Your task to perform on an android device: change text size in settings app Image 0: 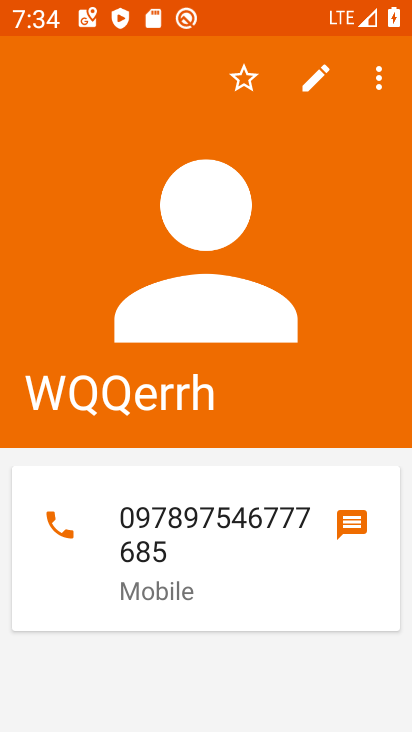
Step 0: press home button
Your task to perform on an android device: change text size in settings app Image 1: 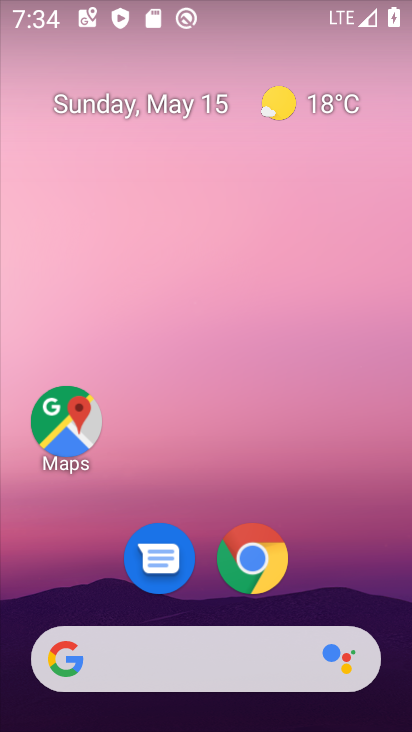
Step 1: drag from (316, 542) to (183, 73)
Your task to perform on an android device: change text size in settings app Image 2: 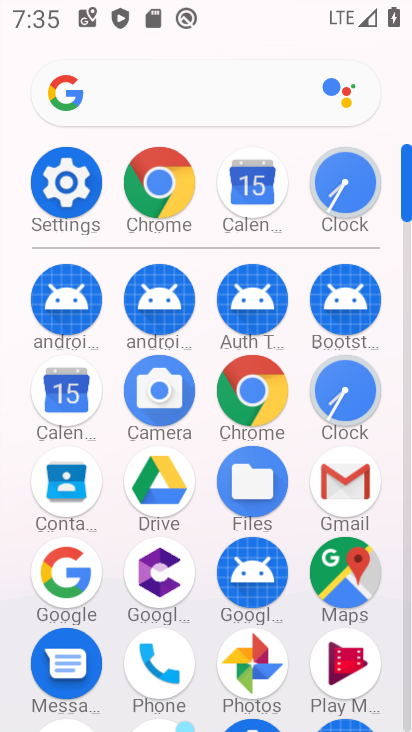
Step 2: click (63, 185)
Your task to perform on an android device: change text size in settings app Image 3: 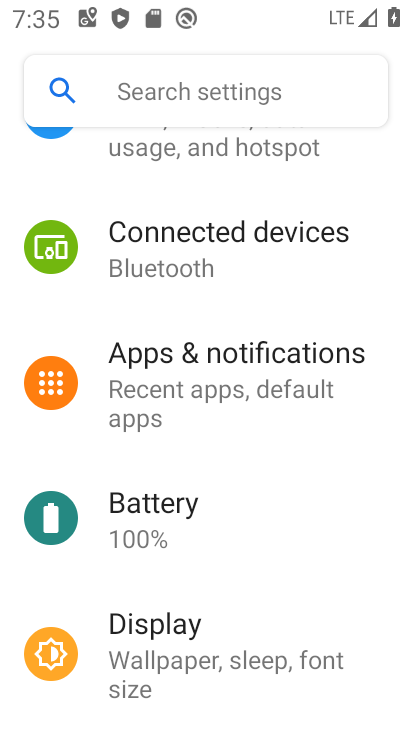
Step 3: click (145, 625)
Your task to perform on an android device: change text size in settings app Image 4: 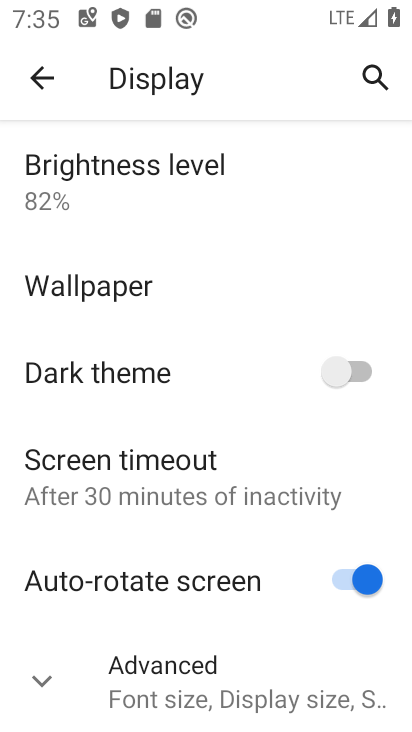
Step 4: click (133, 673)
Your task to perform on an android device: change text size in settings app Image 5: 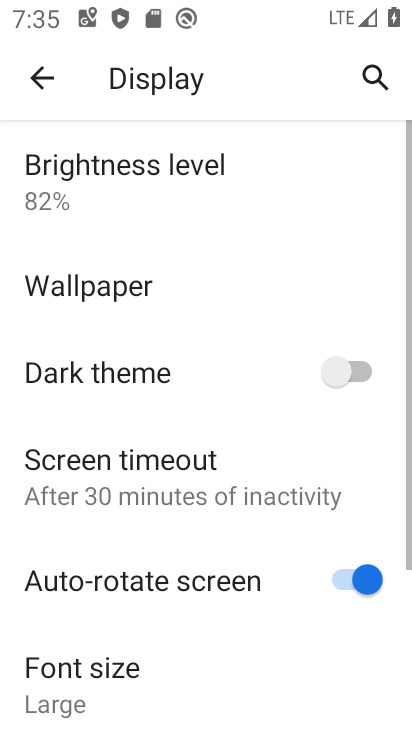
Step 5: drag from (225, 606) to (160, 373)
Your task to perform on an android device: change text size in settings app Image 6: 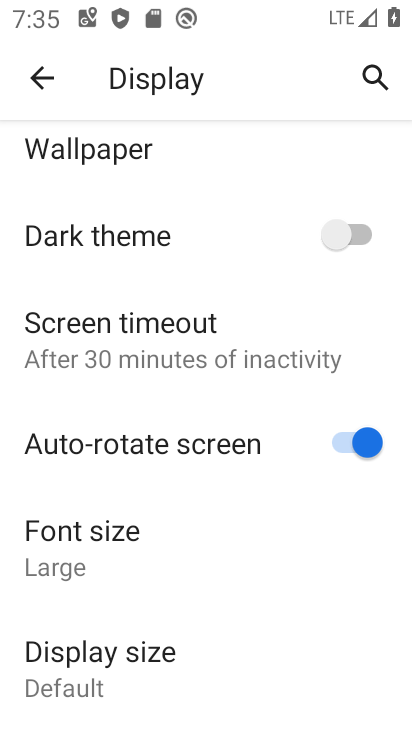
Step 6: click (67, 539)
Your task to perform on an android device: change text size in settings app Image 7: 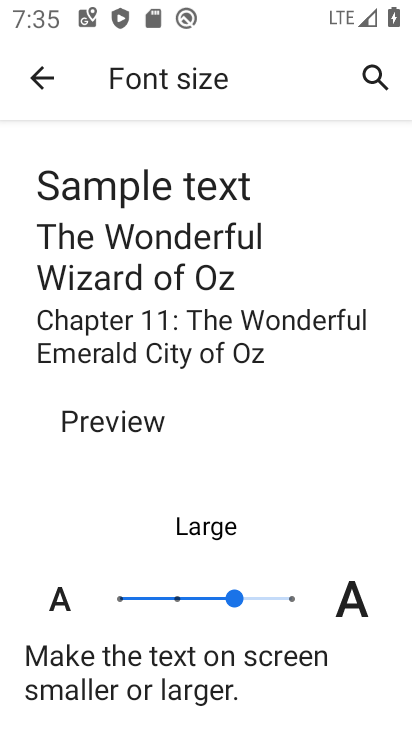
Step 7: click (180, 603)
Your task to perform on an android device: change text size in settings app Image 8: 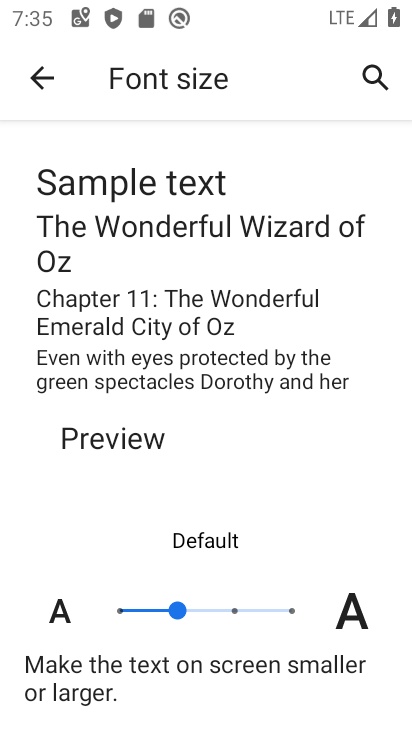
Step 8: task complete